Your task to perform on an android device: toggle improve location accuracy Image 0: 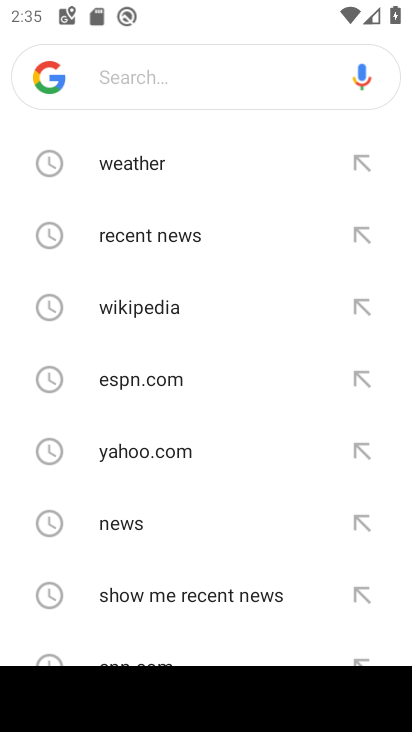
Step 0: press home button
Your task to perform on an android device: toggle improve location accuracy Image 1: 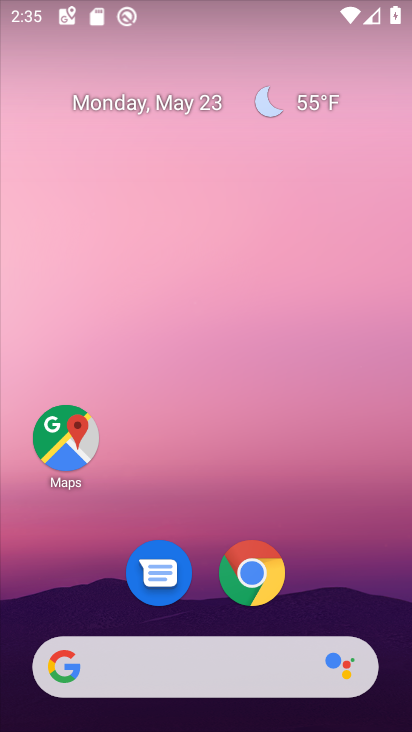
Step 1: drag from (320, 603) to (281, 47)
Your task to perform on an android device: toggle improve location accuracy Image 2: 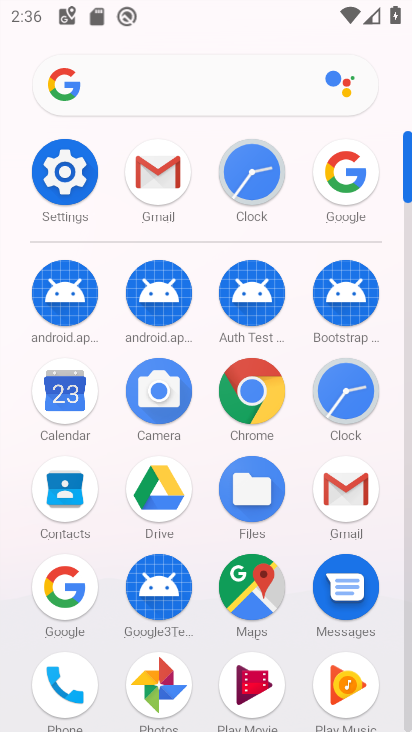
Step 2: click (66, 170)
Your task to perform on an android device: toggle improve location accuracy Image 3: 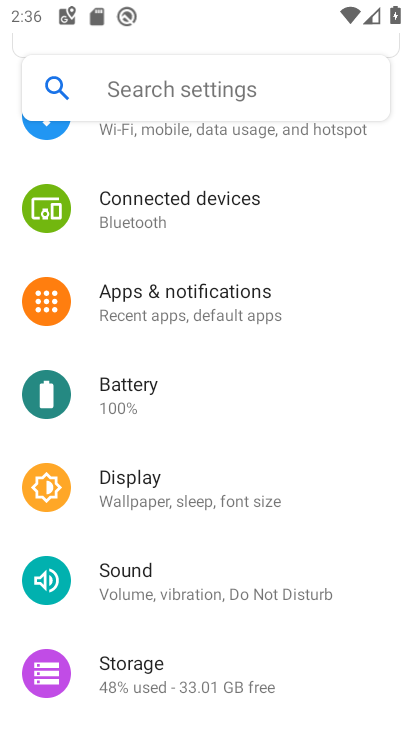
Step 3: drag from (229, 618) to (240, 212)
Your task to perform on an android device: toggle improve location accuracy Image 4: 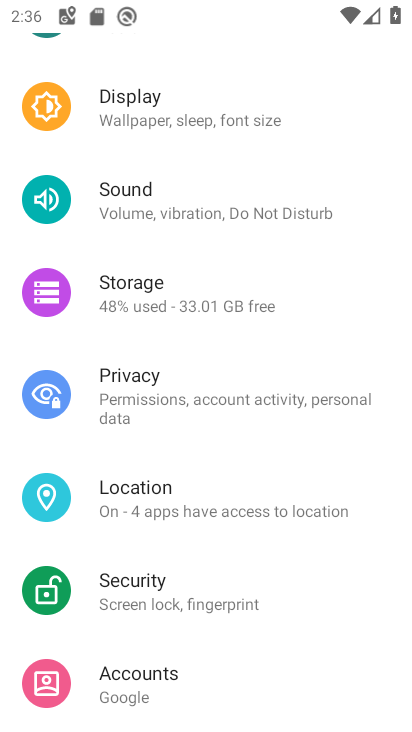
Step 4: click (167, 496)
Your task to perform on an android device: toggle improve location accuracy Image 5: 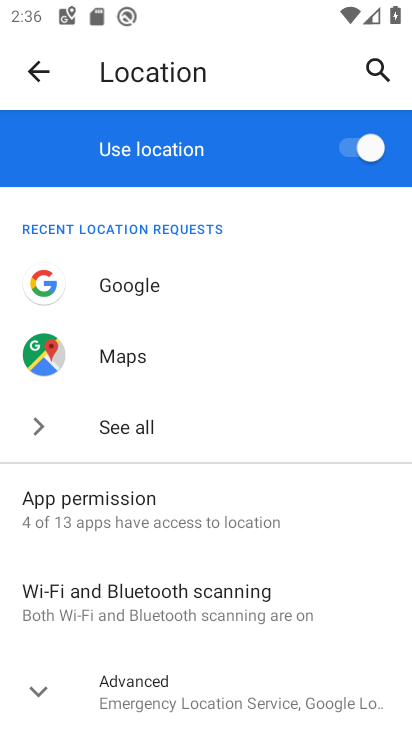
Step 5: click (202, 704)
Your task to perform on an android device: toggle improve location accuracy Image 6: 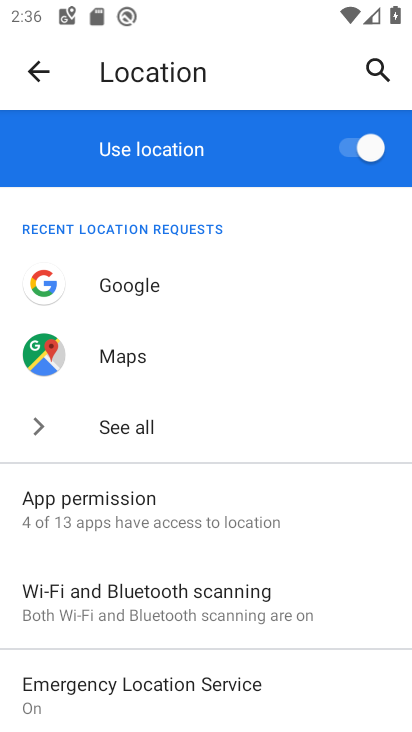
Step 6: drag from (268, 604) to (283, 203)
Your task to perform on an android device: toggle improve location accuracy Image 7: 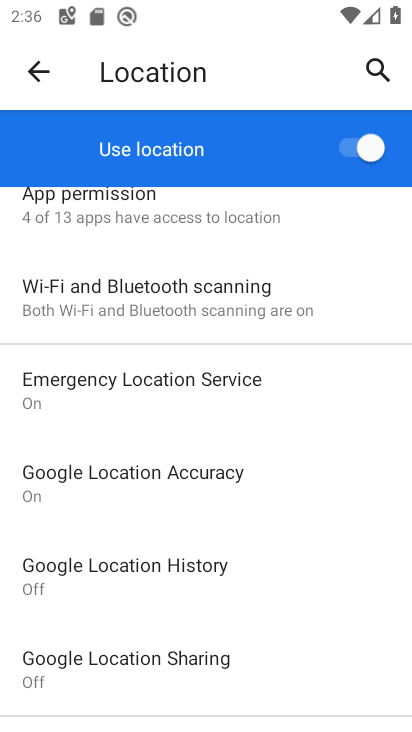
Step 7: click (166, 482)
Your task to perform on an android device: toggle improve location accuracy Image 8: 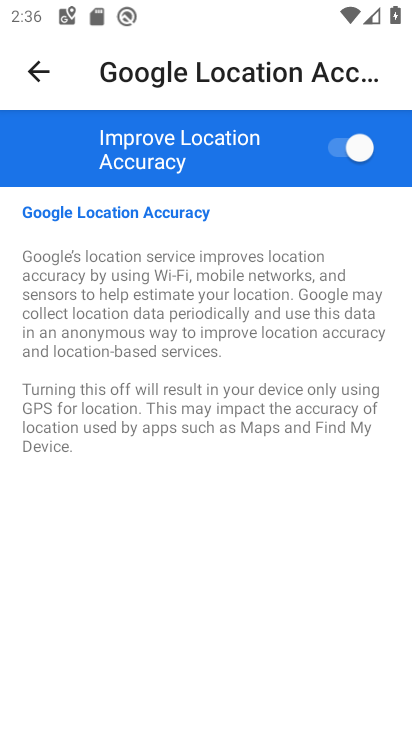
Step 8: click (339, 154)
Your task to perform on an android device: toggle improve location accuracy Image 9: 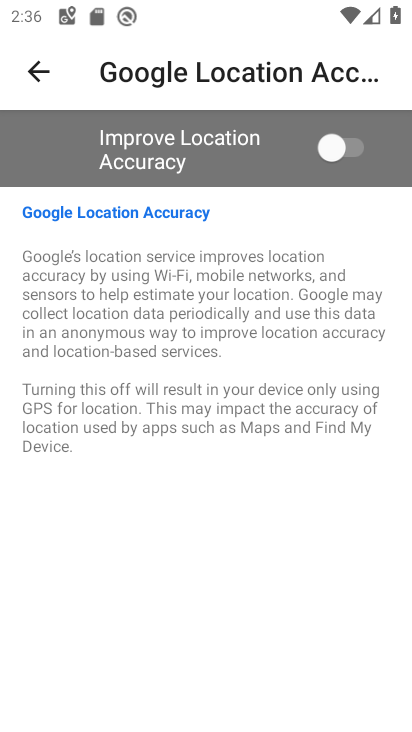
Step 9: task complete